Your task to perform on an android device: Clear the shopping cart on costco.com. Search for "rayovac triple a" on costco.com, select the first entry, and add it to the cart. Image 0: 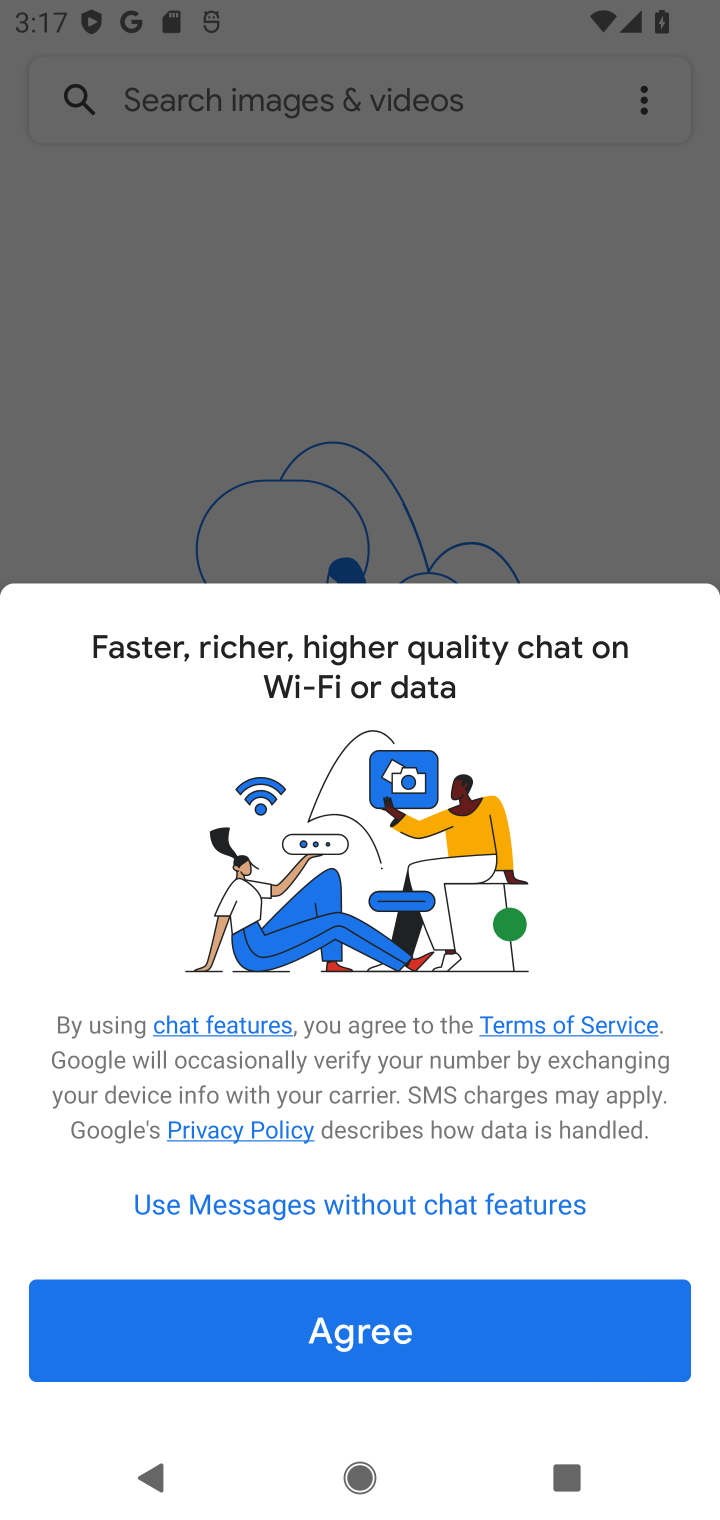
Step 0: press home button
Your task to perform on an android device: Clear the shopping cart on costco.com. Search for "rayovac triple a" on costco.com, select the first entry, and add it to the cart. Image 1: 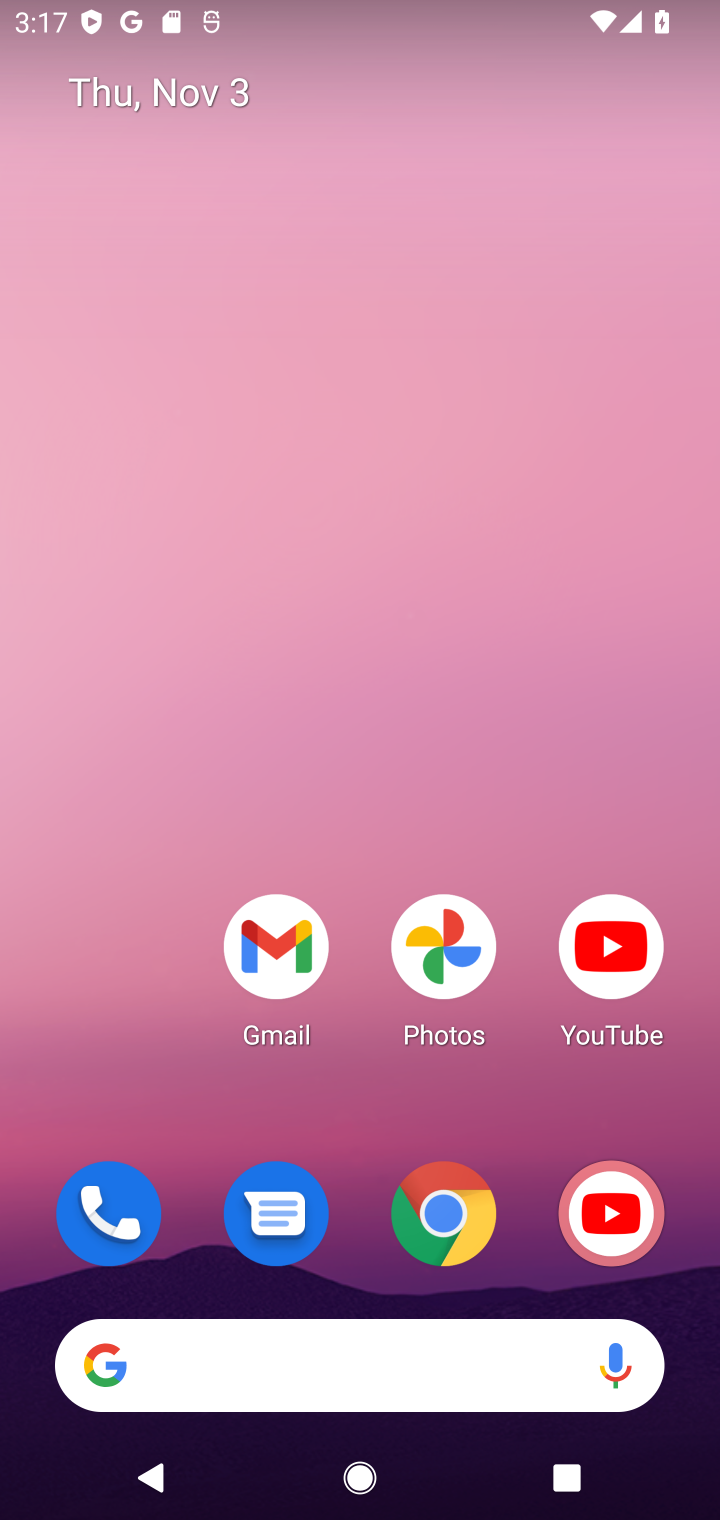
Step 1: click (444, 1210)
Your task to perform on an android device: Clear the shopping cart on costco.com. Search for "rayovac triple a" on costco.com, select the first entry, and add it to the cart. Image 2: 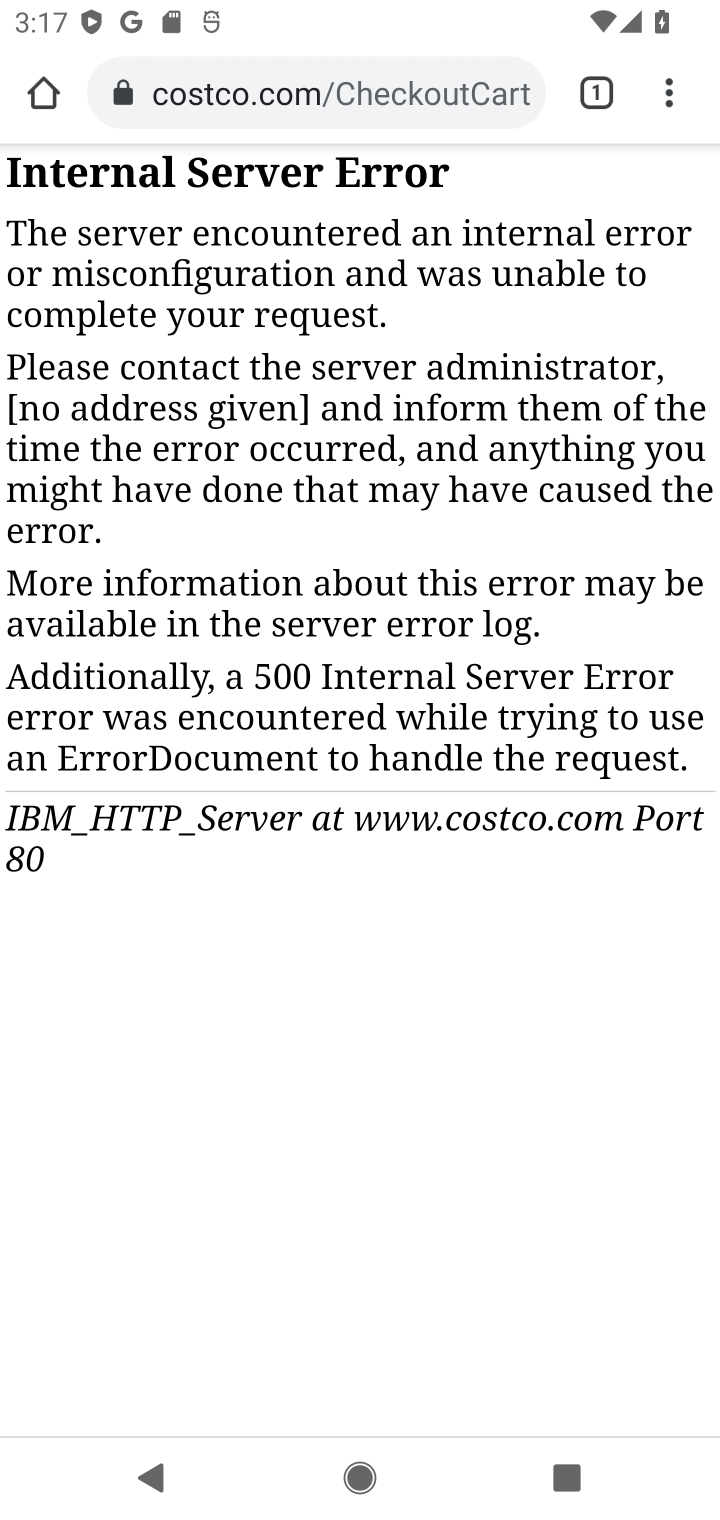
Step 2: press back button
Your task to perform on an android device: Clear the shopping cart on costco.com. Search for "rayovac triple a" on costco.com, select the first entry, and add it to the cart. Image 3: 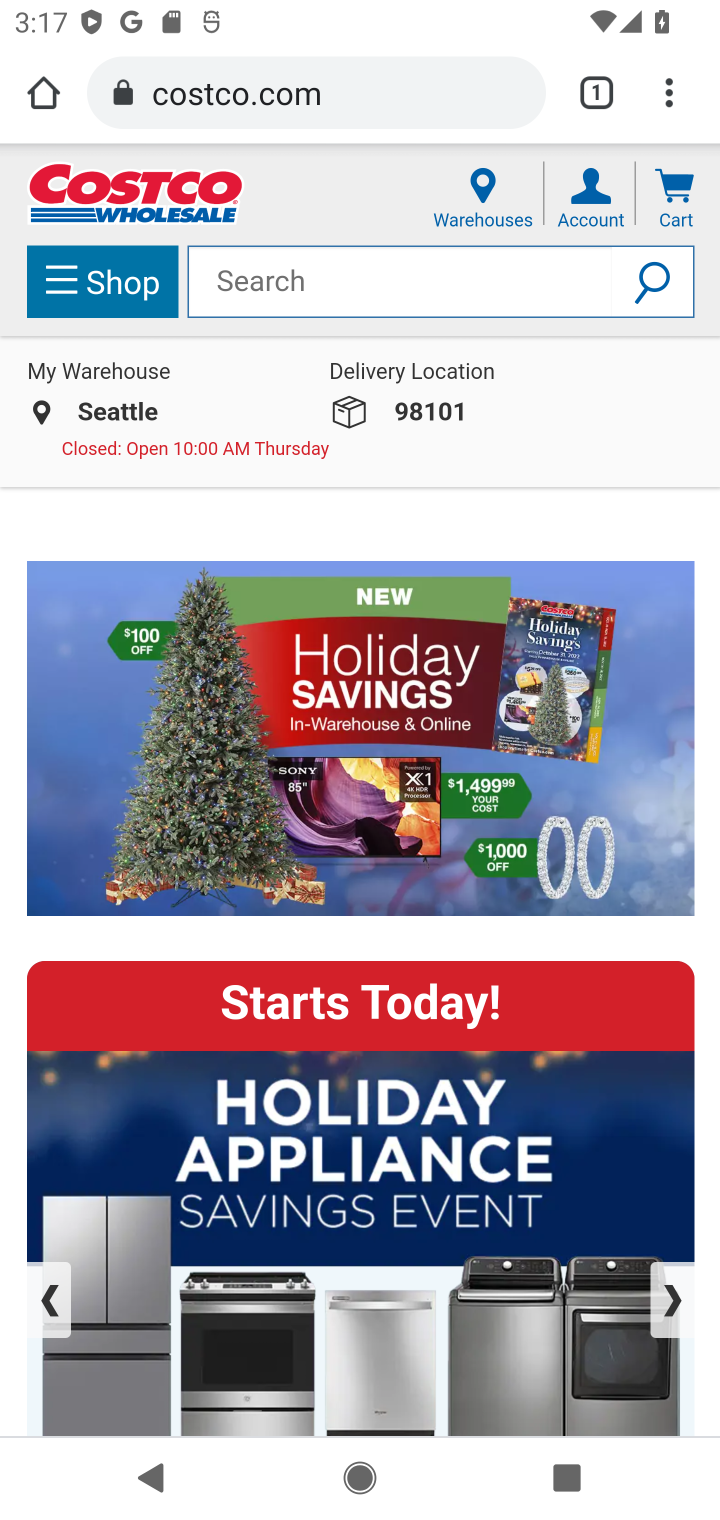
Step 3: click (674, 198)
Your task to perform on an android device: Clear the shopping cart on costco.com. Search for "rayovac triple a" on costco.com, select the first entry, and add it to the cart. Image 4: 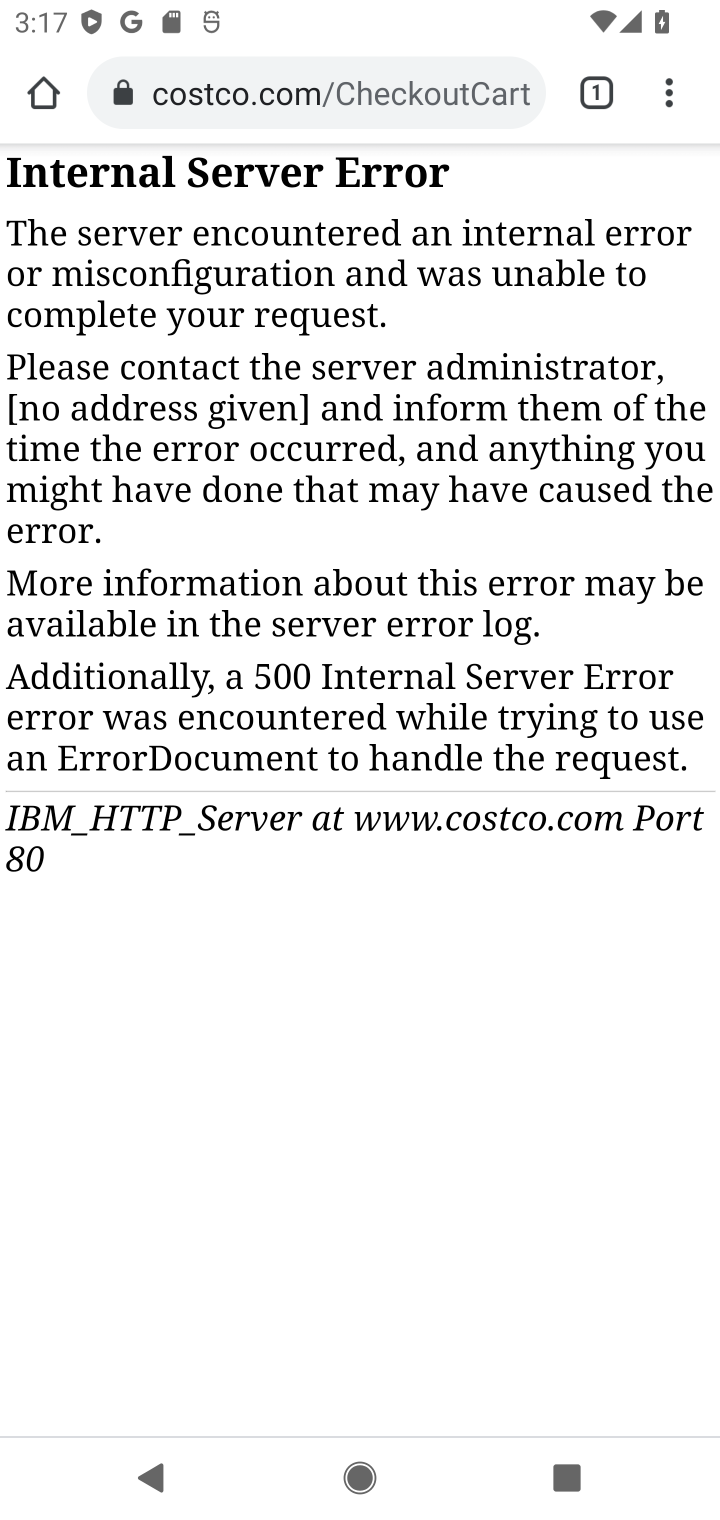
Step 4: press back button
Your task to perform on an android device: Clear the shopping cart on costco.com. Search for "rayovac triple a" on costco.com, select the first entry, and add it to the cart. Image 5: 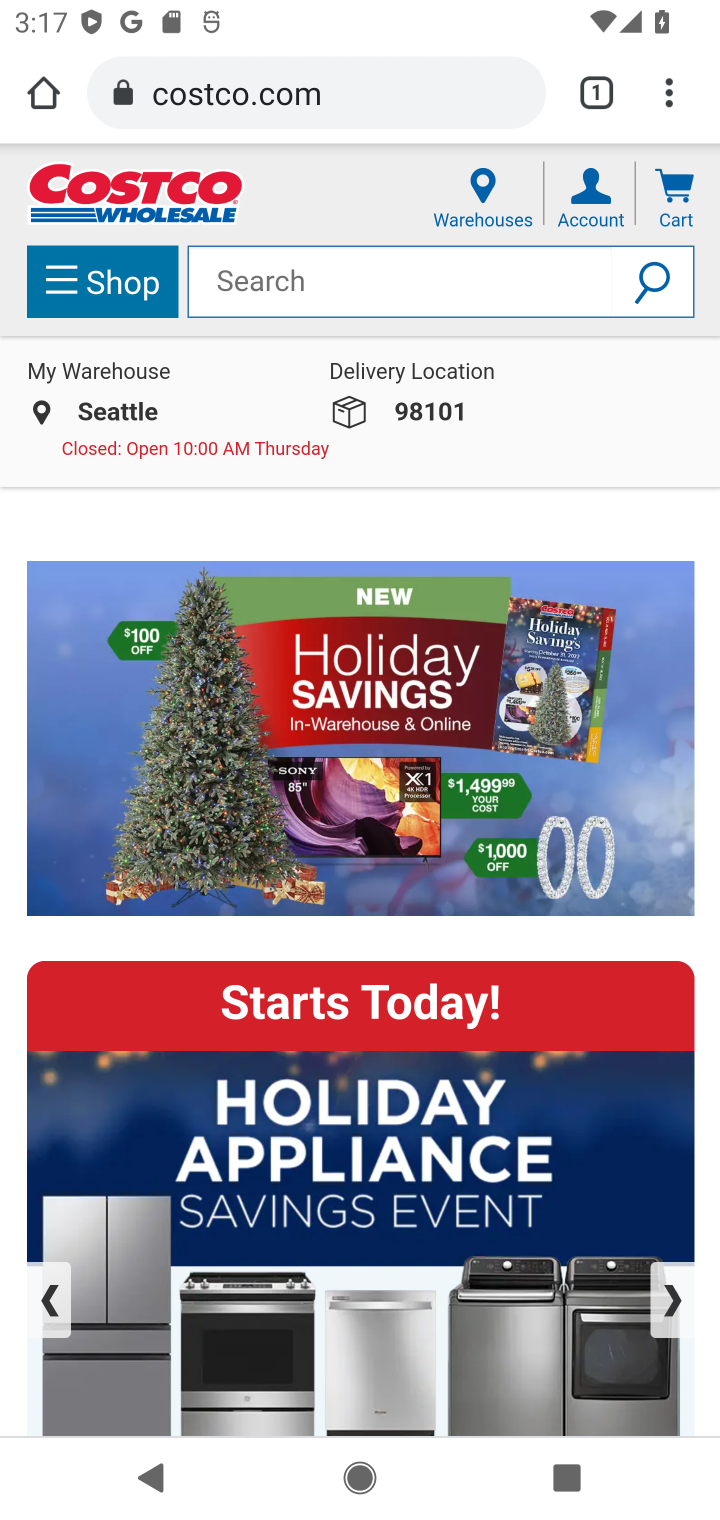
Step 5: click (243, 287)
Your task to perform on an android device: Clear the shopping cart on costco.com. Search for "rayovac triple a" on costco.com, select the first entry, and add it to the cart. Image 6: 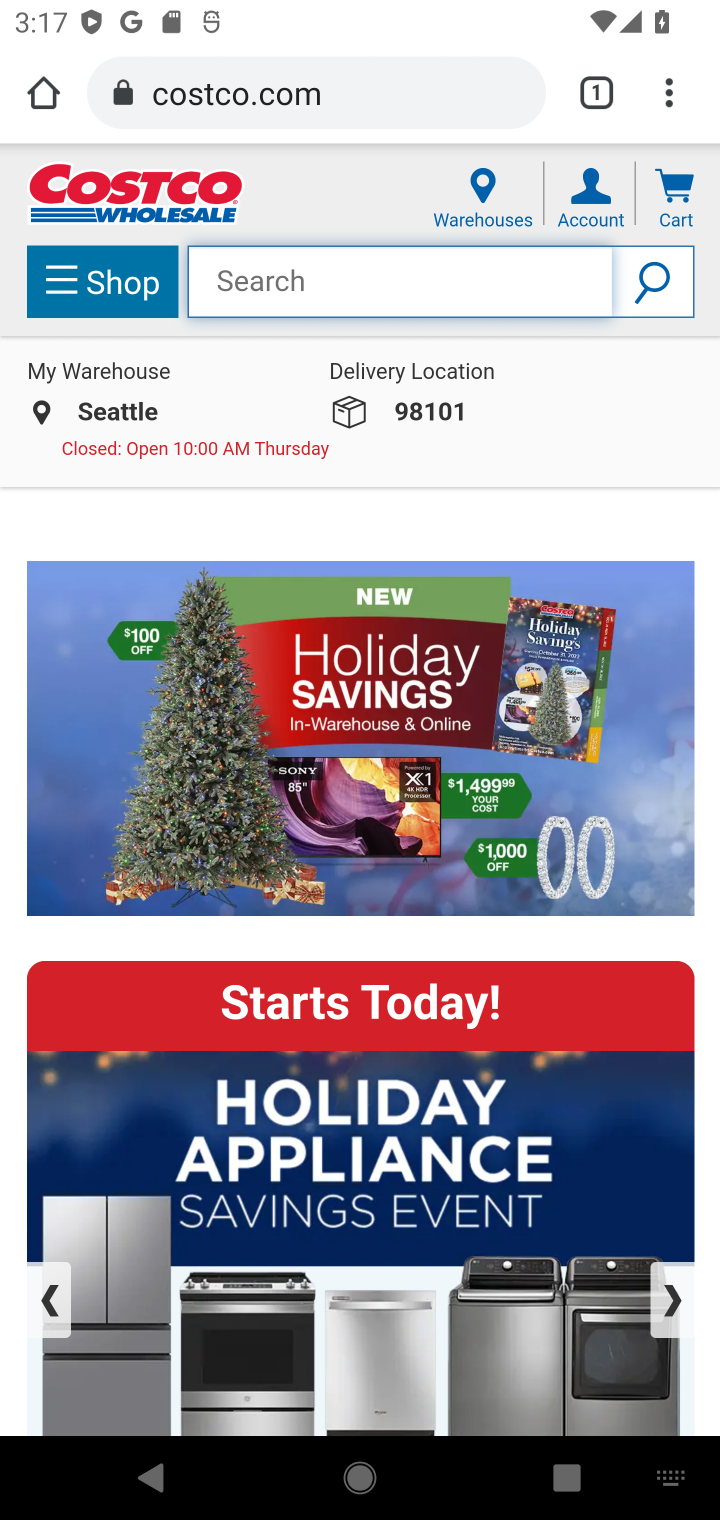
Step 6: type "rayovac triple a"
Your task to perform on an android device: Clear the shopping cart on costco.com. Search for "rayovac triple a" on costco.com, select the first entry, and add it to the cart. Image 7: 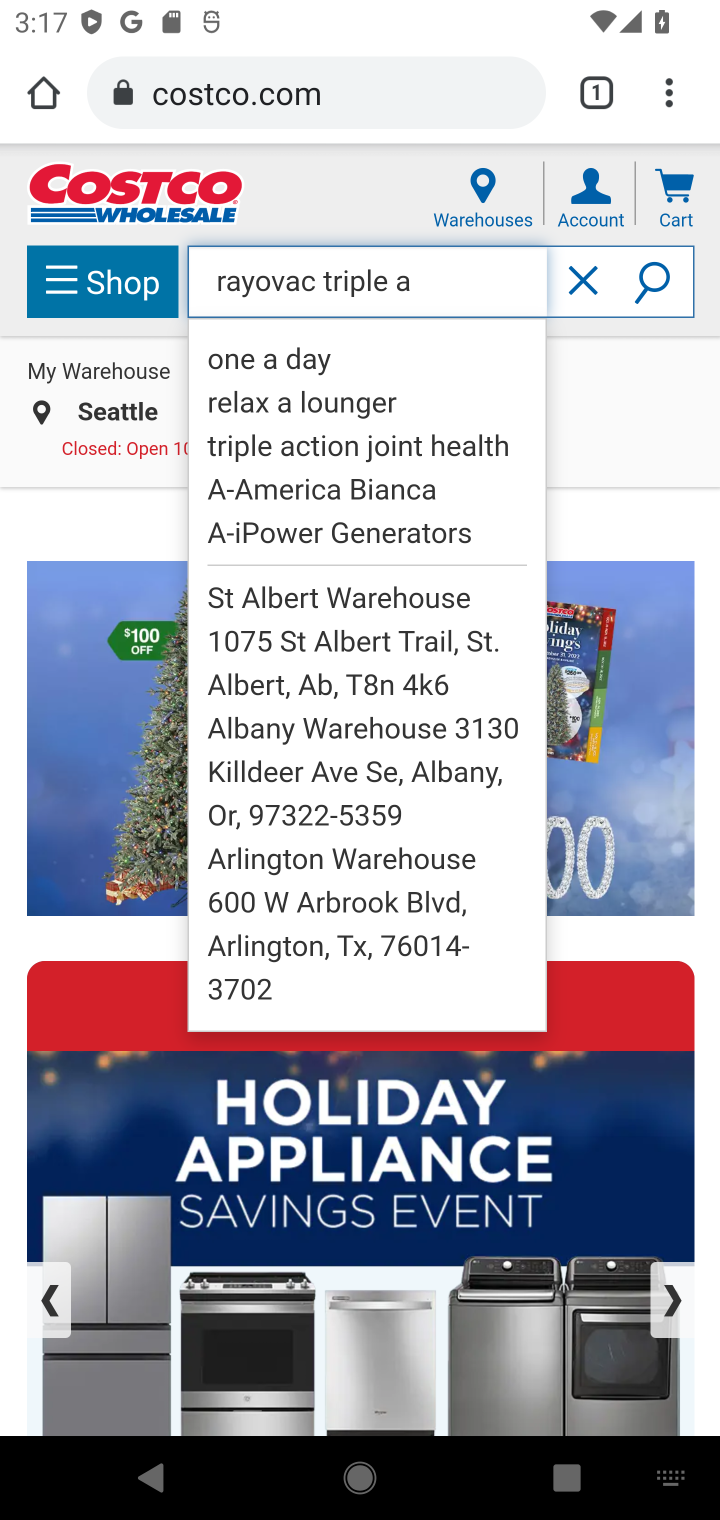
Step 7: click (658, 297)
Your task to perform on an android device: Clear the shopping cart on costco.com. Search for "rayovac triple a" on costco.com, select the first entry, and add it to the cart. Image 8: 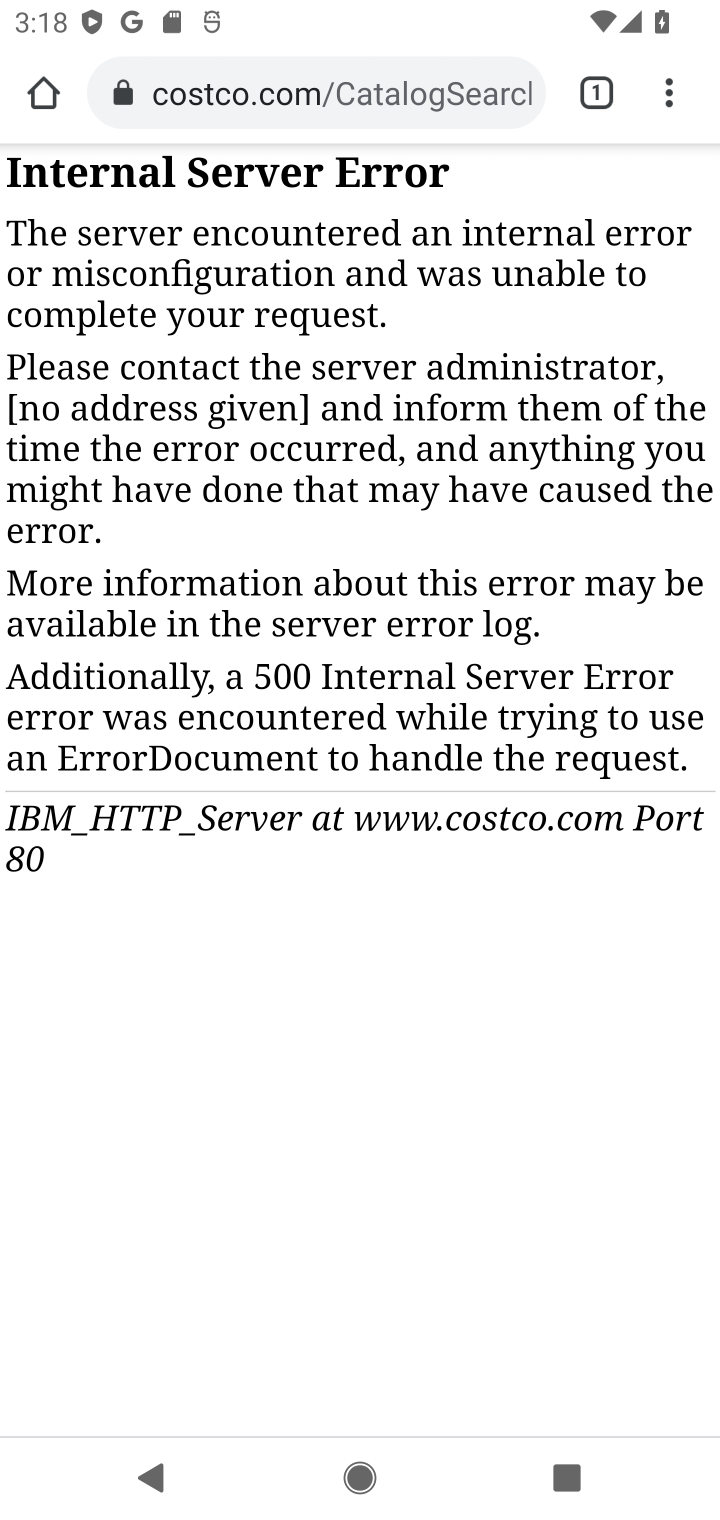
Step 8: task complete